Your task to perform on an android device: Open settings on Google Maps Image 0: 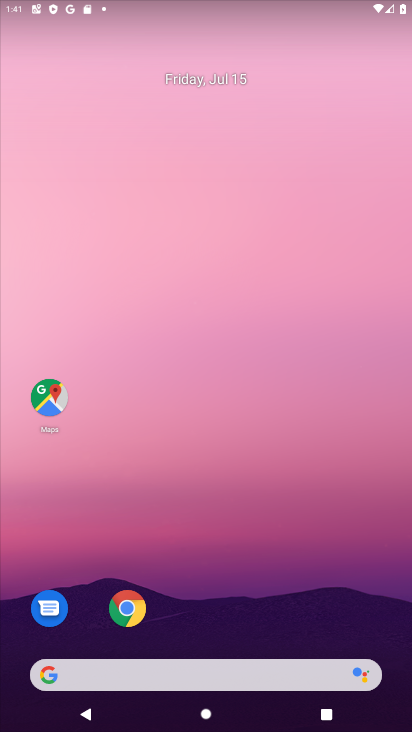
Step 0: click (36, 405)
Your task to perform on an android device: Open settings on Google Maps Image 1: 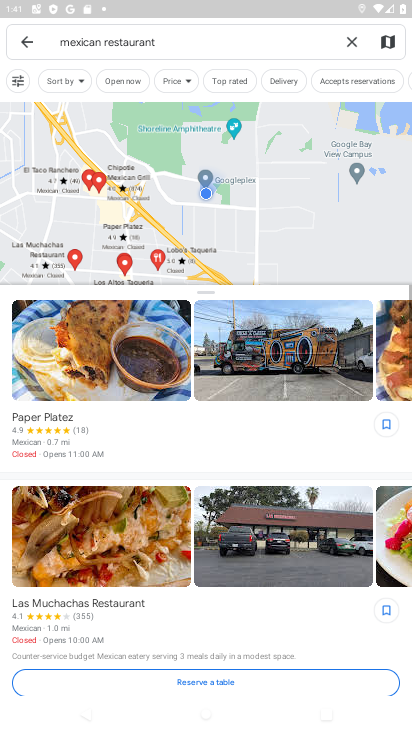
Step 1: click (358, 33)
Your task to perform on an android device: Open settings on Google Maps Image 2: 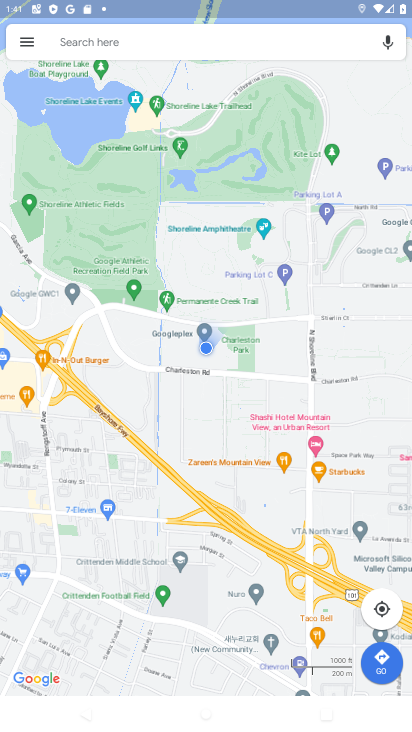
Step 2: click (30, 38)
Your task to perform on an android device: Open settings on Google Maps Image 3: 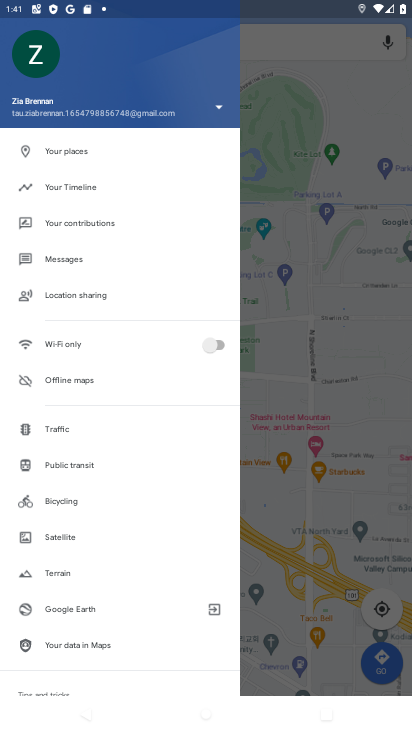
Step 3: drag from (55, 547) to (72, 119)
Your task to perform on an android device: Open settings on Google Maps Image 4: 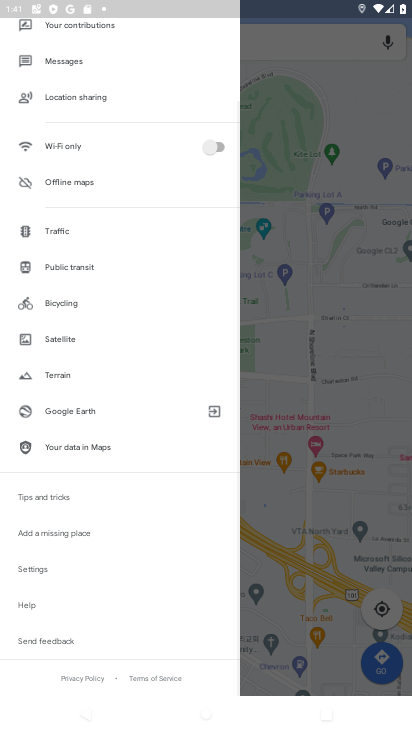
Step 4: click (51, 568)
Your task to perform on an android device: Open settings on Google Maps Image 5: 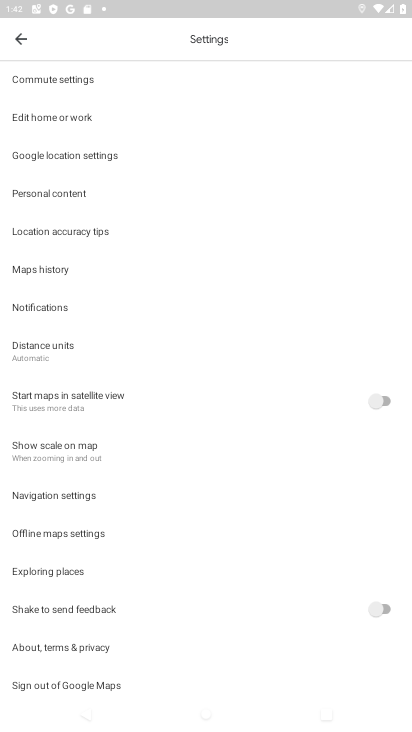
Step 5: task complete